Your task to perform on an android device: turn off wifi Image 0: 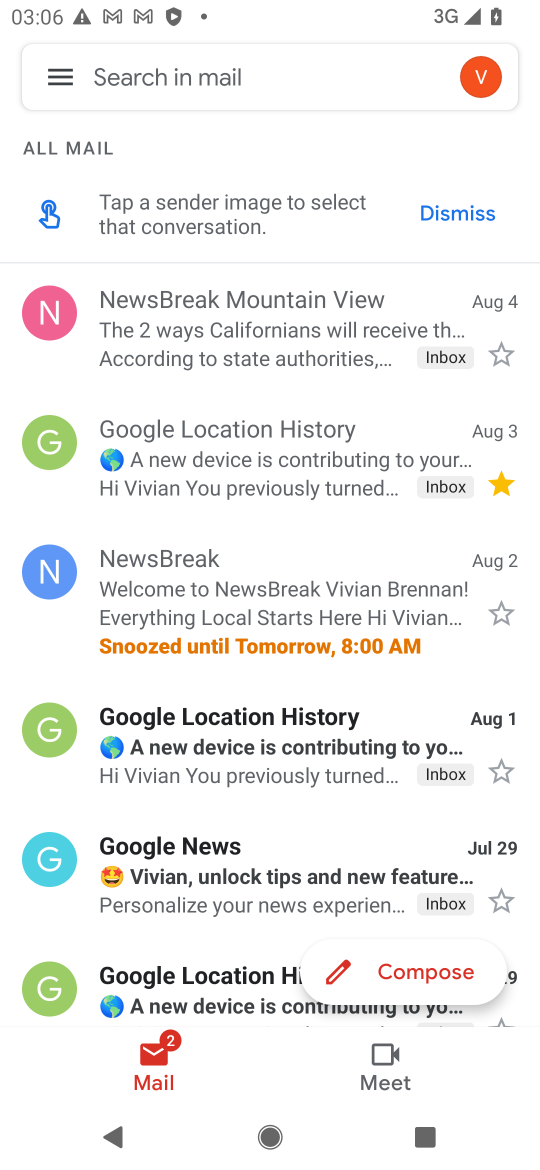
Step 0: press home button
Your task to perform on an android device: turn off wifi Image 1: 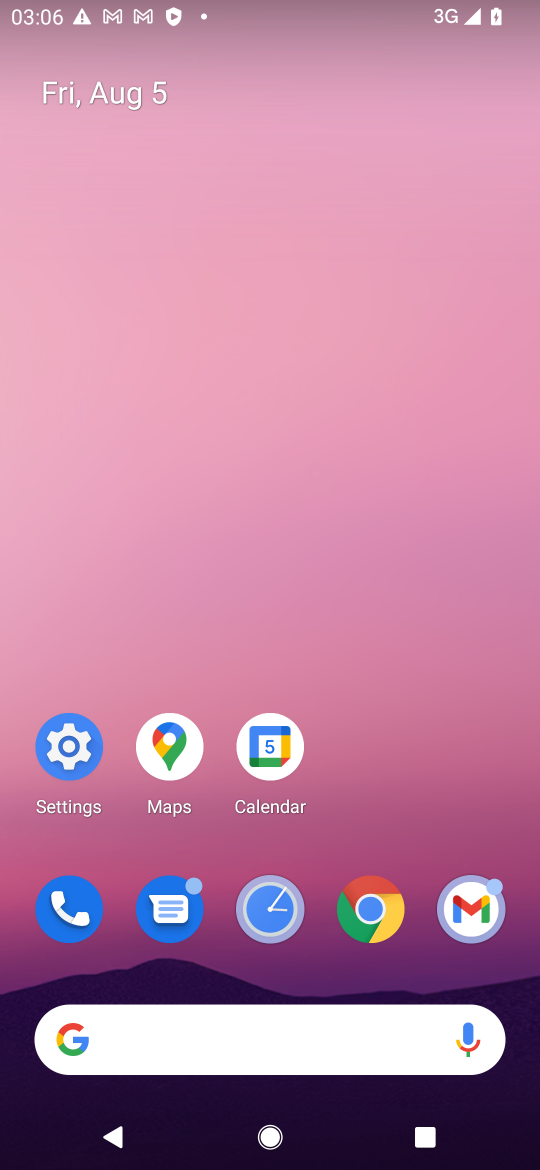
Step 1: click (68, 744)
Your task to perform on an android device: turn off wifi Image 2: 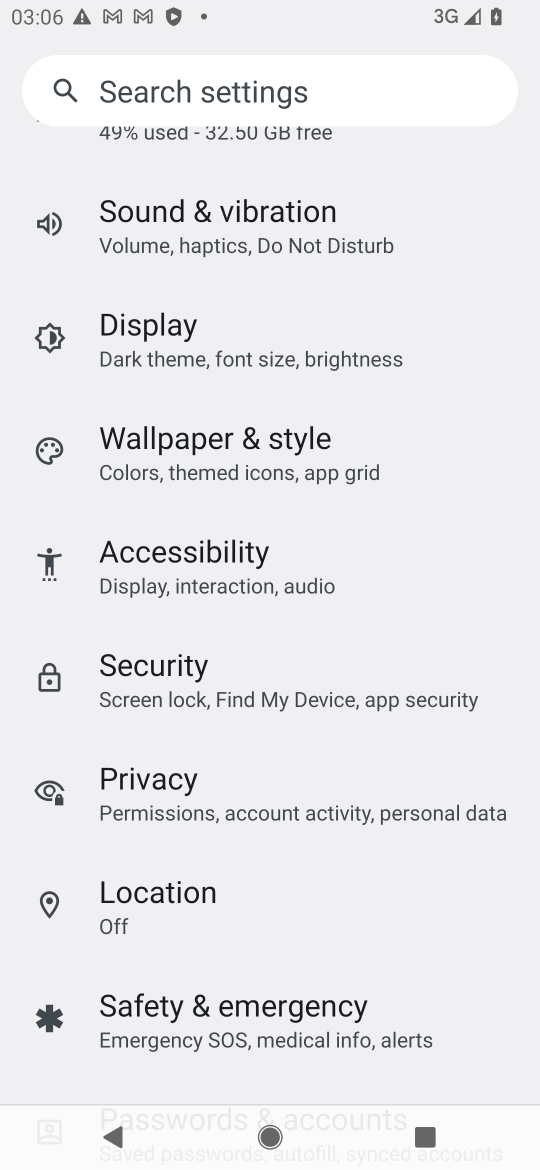
Step 2: drag from (287, 278) to (320, 703)
Your task to perform on an android device: turn off wifi Image 3: 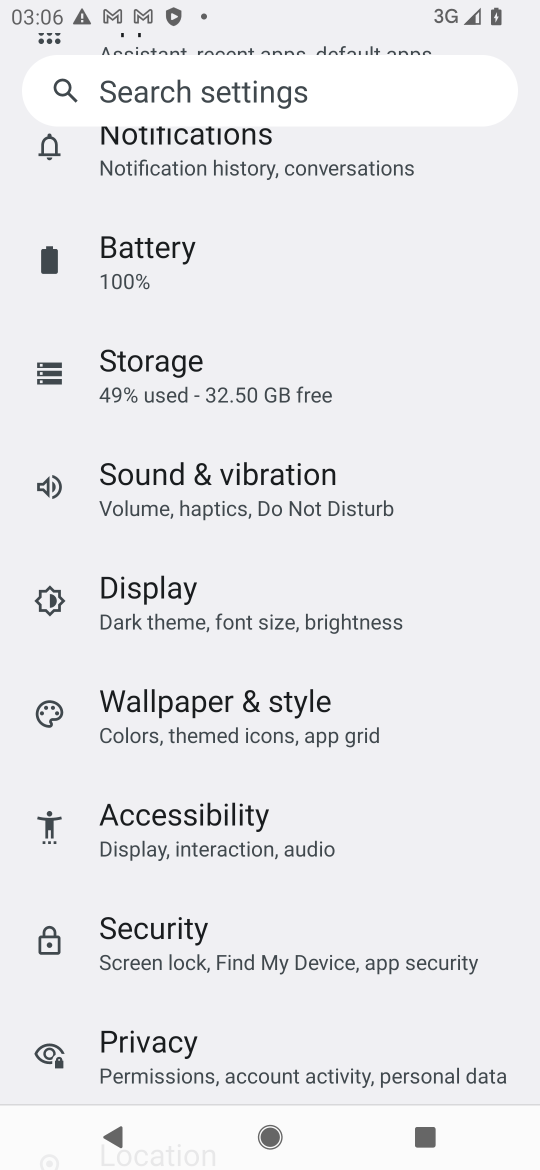
Step 3: drag from (292, 269) to (366, 944)
Your task to perform on an android device: turn off wifi Image 4: 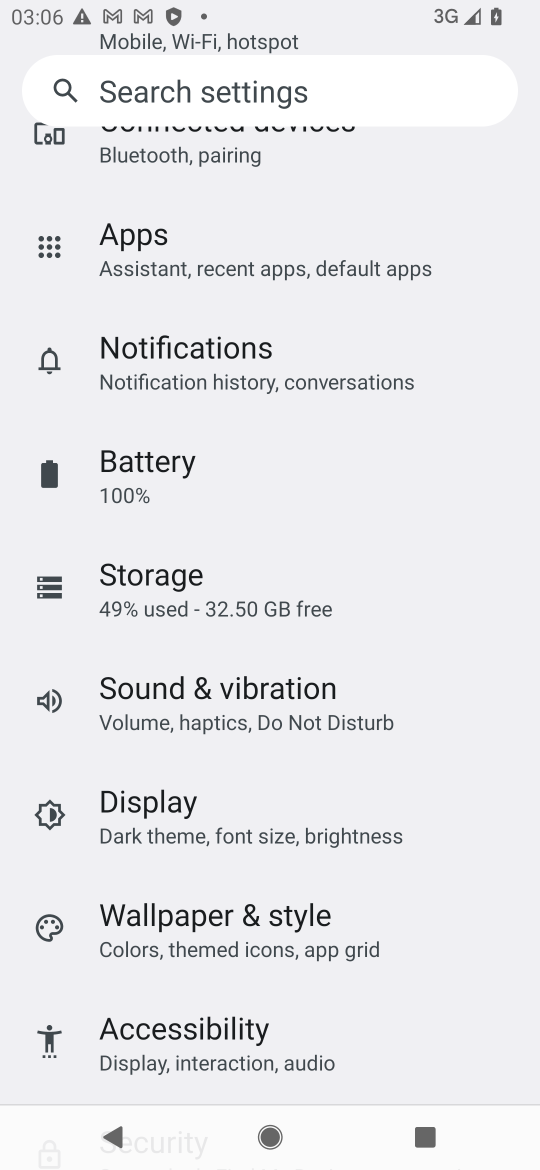
Step 4: drag from (343, 503) to (405, 974)
Your task to perform on an android device: turn off wifi Image 5: 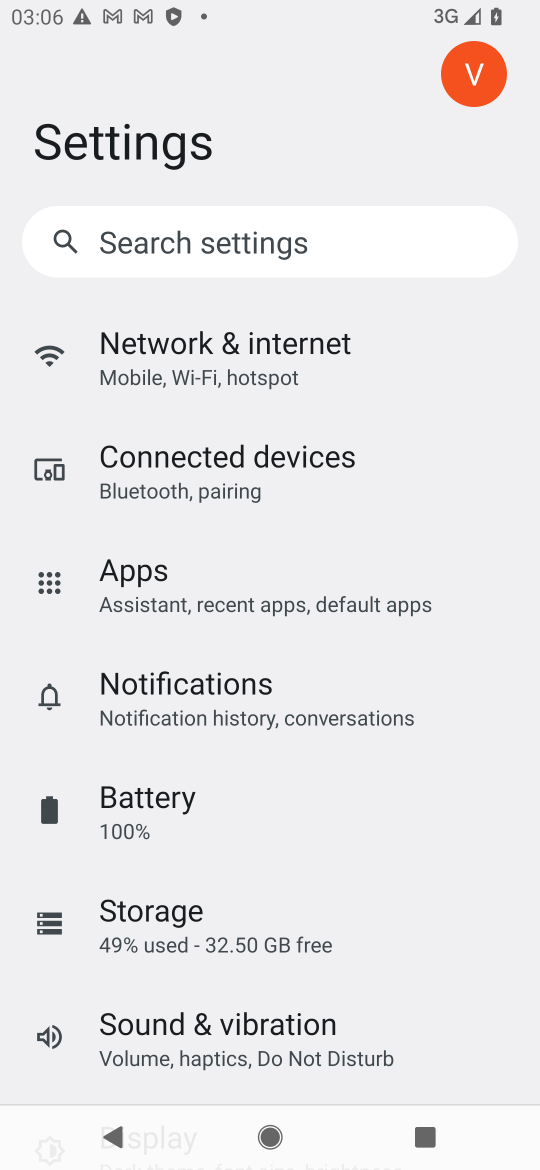
Step 5: click (229, 329)
Your task to perform on an android device: turn off wifi Image 6: 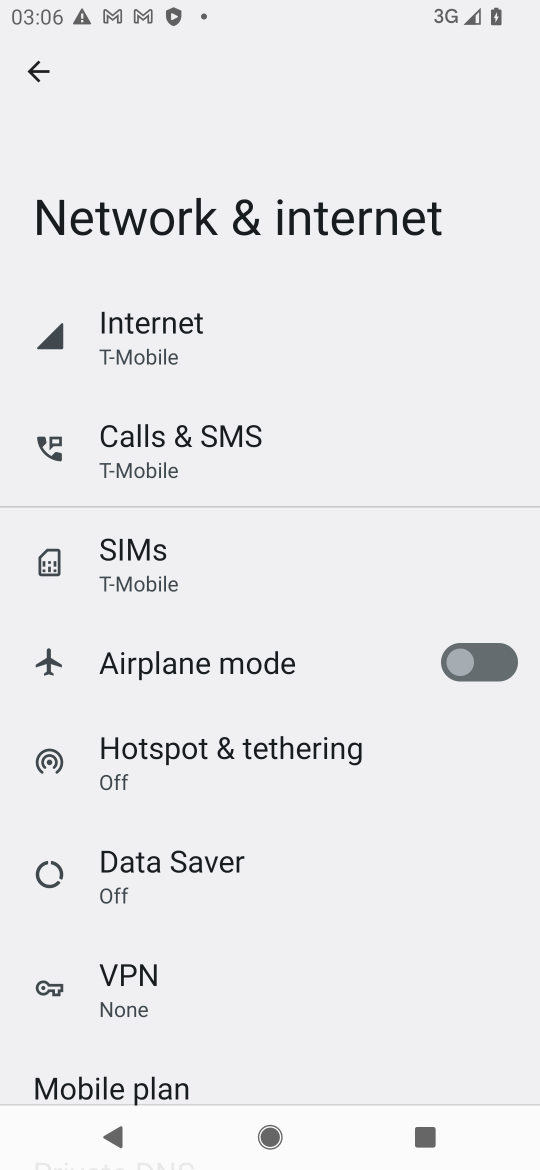
Step 6: click (153, 312)
Your task to perform on an android device: turn off wifi Image 7: 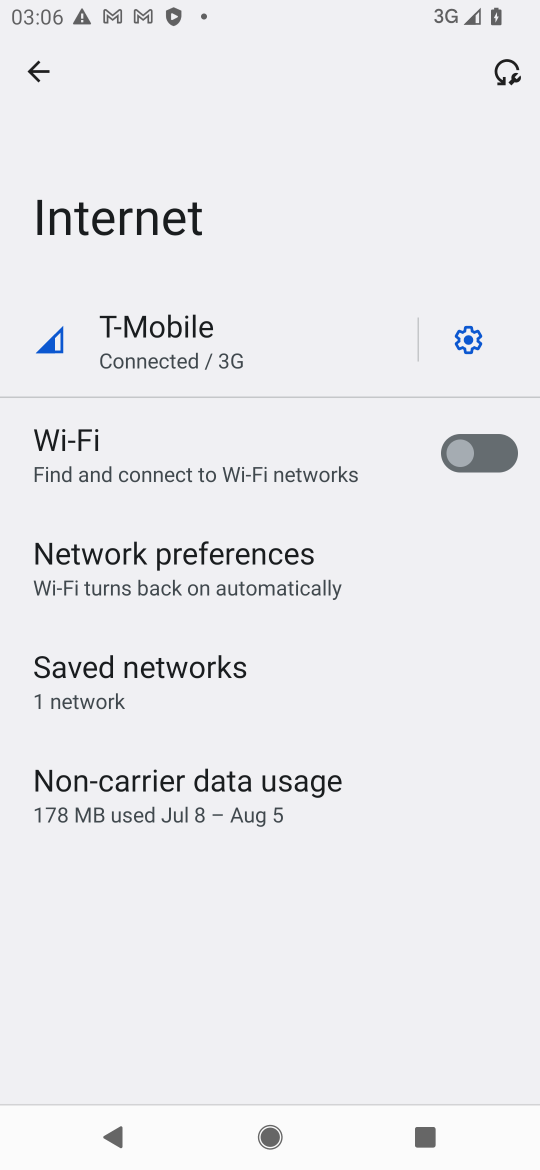
Step 7: task complete